Your task to perform on an android device: Go to wifi settings Image 0: 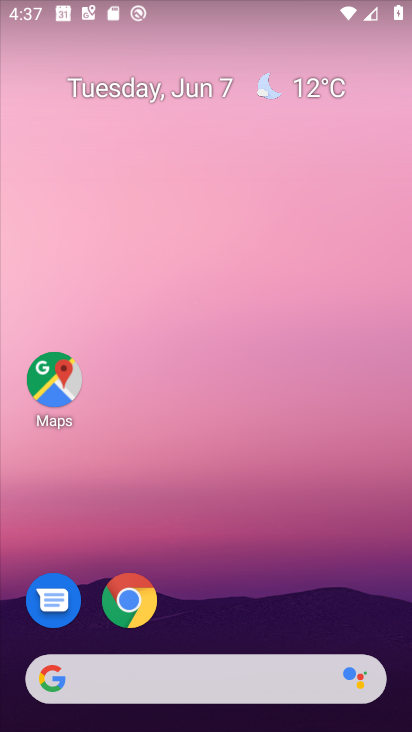
Step 0: drag from (270, 575) to (214, 165)
Your task to perform on an android device: Go to wifi settings Image 1: 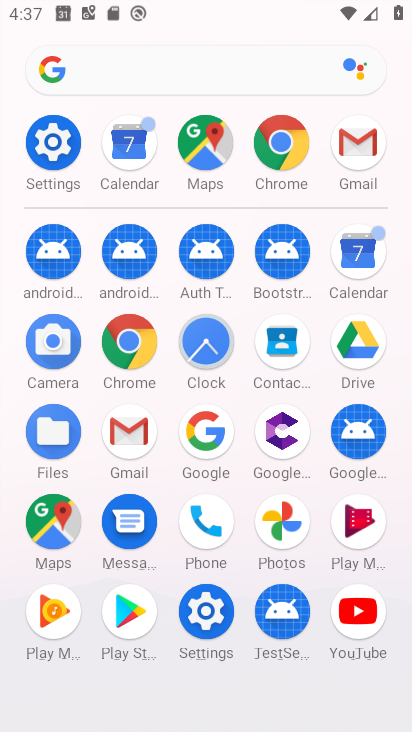
Step 1: click (53, 126)
Your task to perform on an android device: Go to wifi settings Image 2: 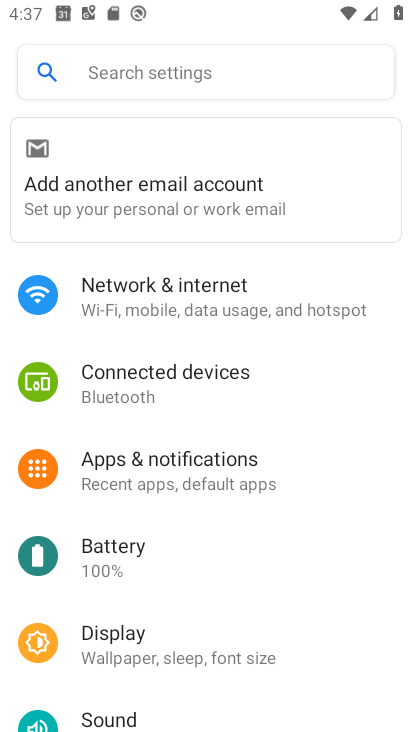
Step 2: click (158, 291)
Your task to perform on an android device: Go to wifi settings Image 3: 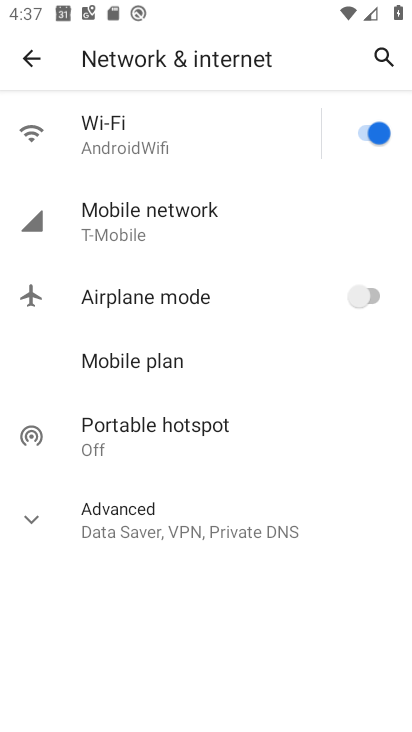
Step 3: click (212, 145)
Your task to perform on an android device: Go to wifi settings Image 4: 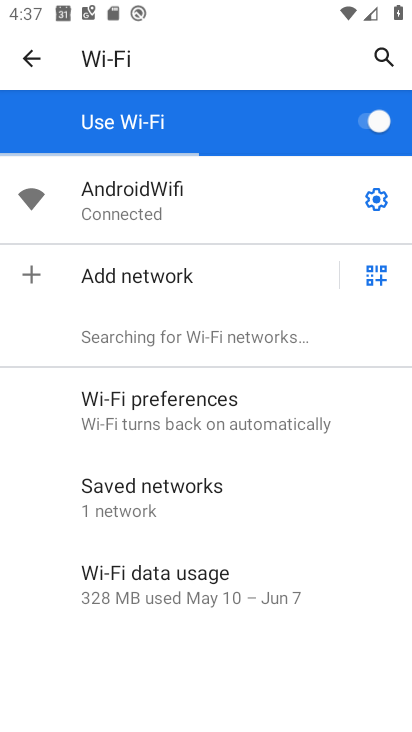
Step 4: click (378, 192)
Your task to perform on an android device: Go to wifi settings Image 5: 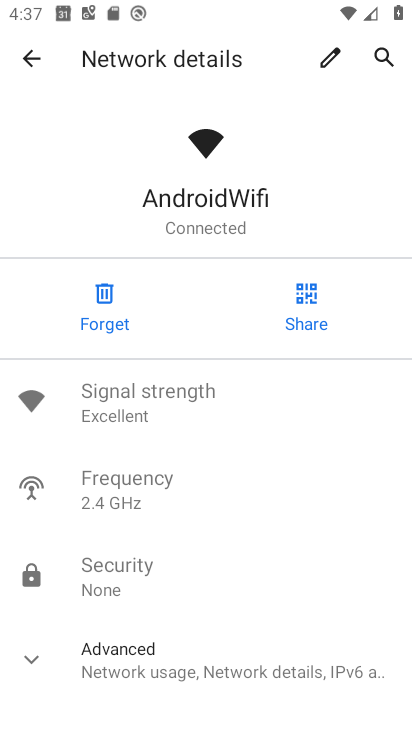
Step 5: task complete